Your task to perform on an android device: allow notifications from all sites in the chrome app Image 0: 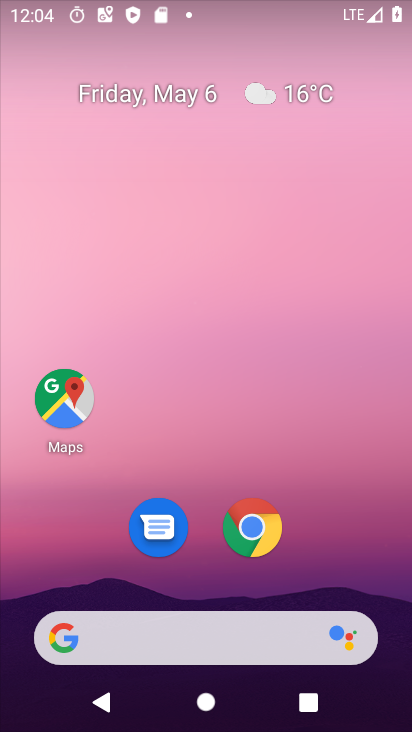
Step 0: drag from (283, 566) to (272, 0)
Your task to perform on an android device: allow notifications from all sites in the chrome app Image 1: 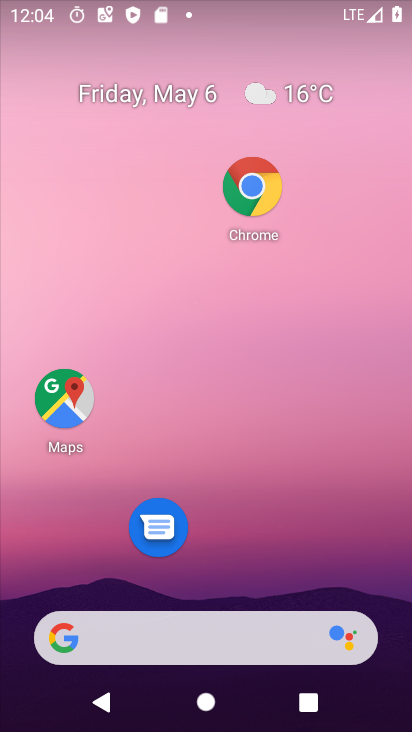
Step 1: drag from (259, 540) to (363, 39)
Your task to perform on an android device: allow notifications from all sites in the chrome app Image 2: 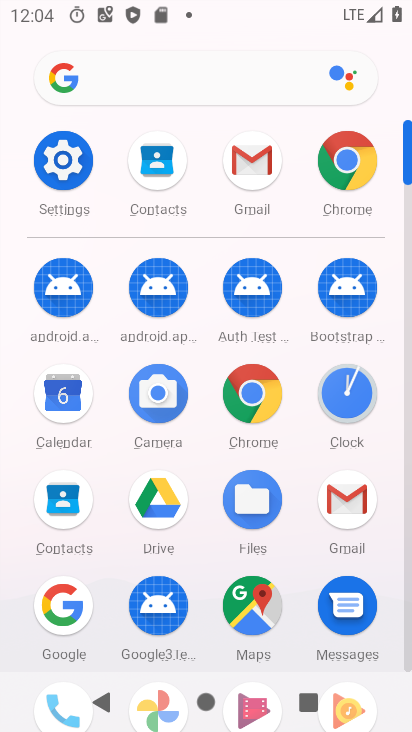
Step 2: click (346, 183)
Your task to perform on an android device: allow notifications from all sites in the chrome app Image 3: 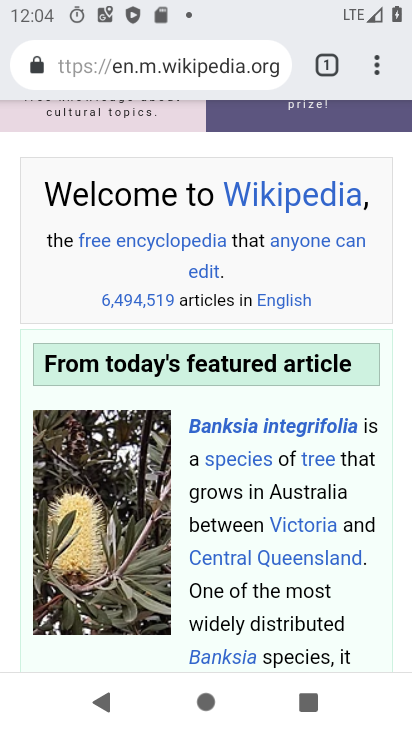
Step 3: click (381, 80)
Your task to perform on an android device: allow notifications from all sites in the chrome app Image 4: 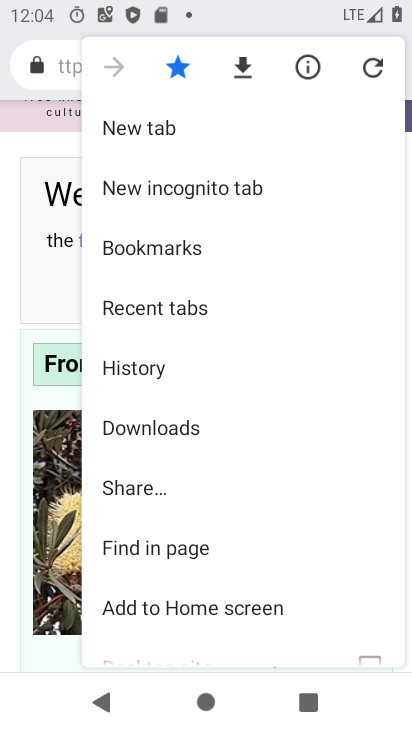
Step 4: drag from (187, 562) to (207, 355)
Your task to perform on an android device: allow notifications from all sites in the chrome app Image 5: 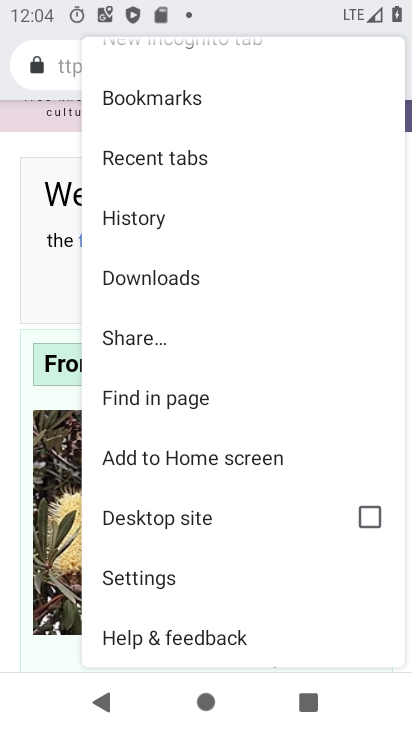
Step 5: click (167, 592)
Your task to perform on an android device: allow notifications from all sites in the chrome app Image 6: 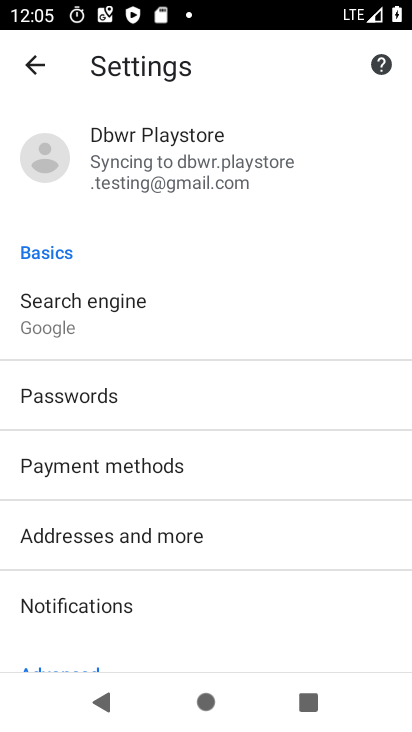
Step 6: drag from (189, 436) to (247, 120)
Your task to perform on an android device: allow notifications from all sites in the chrome app Image 7: 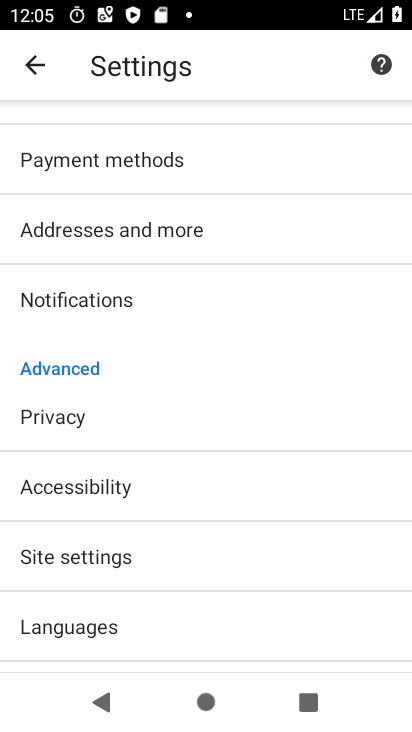
Step 7: click (99, 318)
Your task to perform on an android device: allow notifications from all sites in the chrome app Image 8: 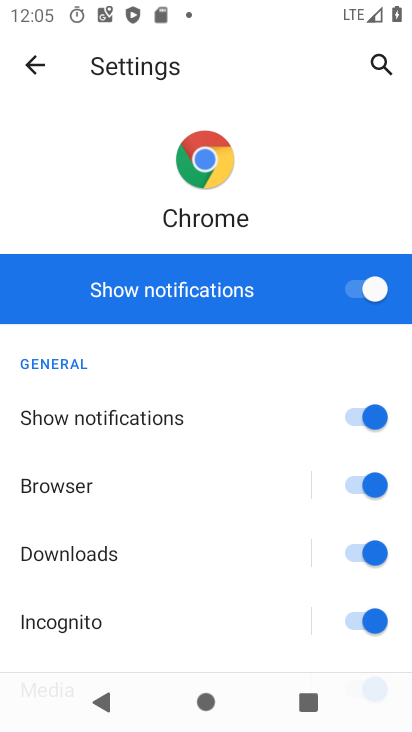
Step 8: click (350, 299)
Your task to perform on an android device: allow notifications from all sites in the chrome app Image 9: 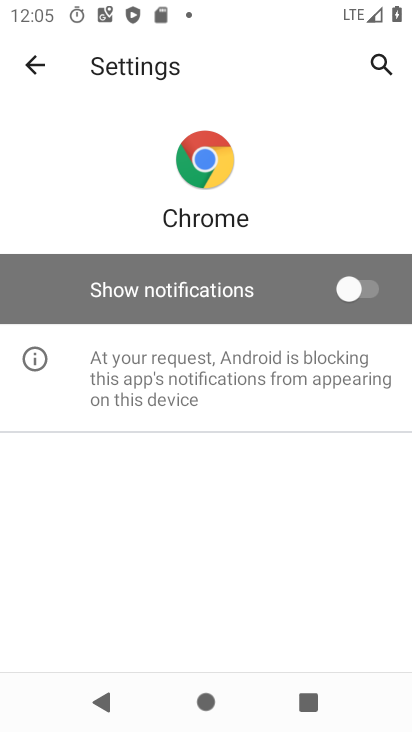
Step 9: task complete